Your task to perform on an android device: open app "Pandora - Music & Podcasts" (install if not already installed) and go to login screen Image 0: 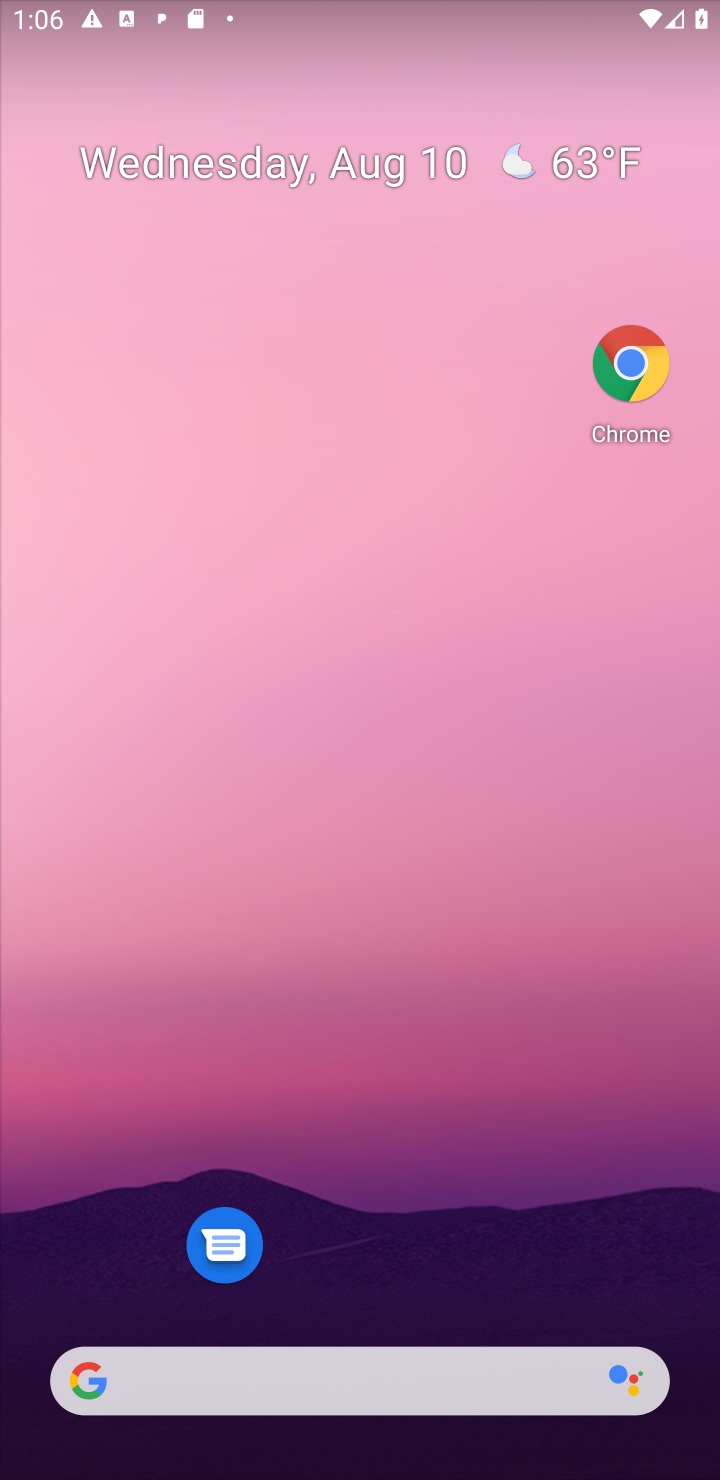
Step 0: press home button
Your task to perform on an android device: open app "Pandora - Music & Podcasts" (install if not already installed) and go to login screen Image 1: 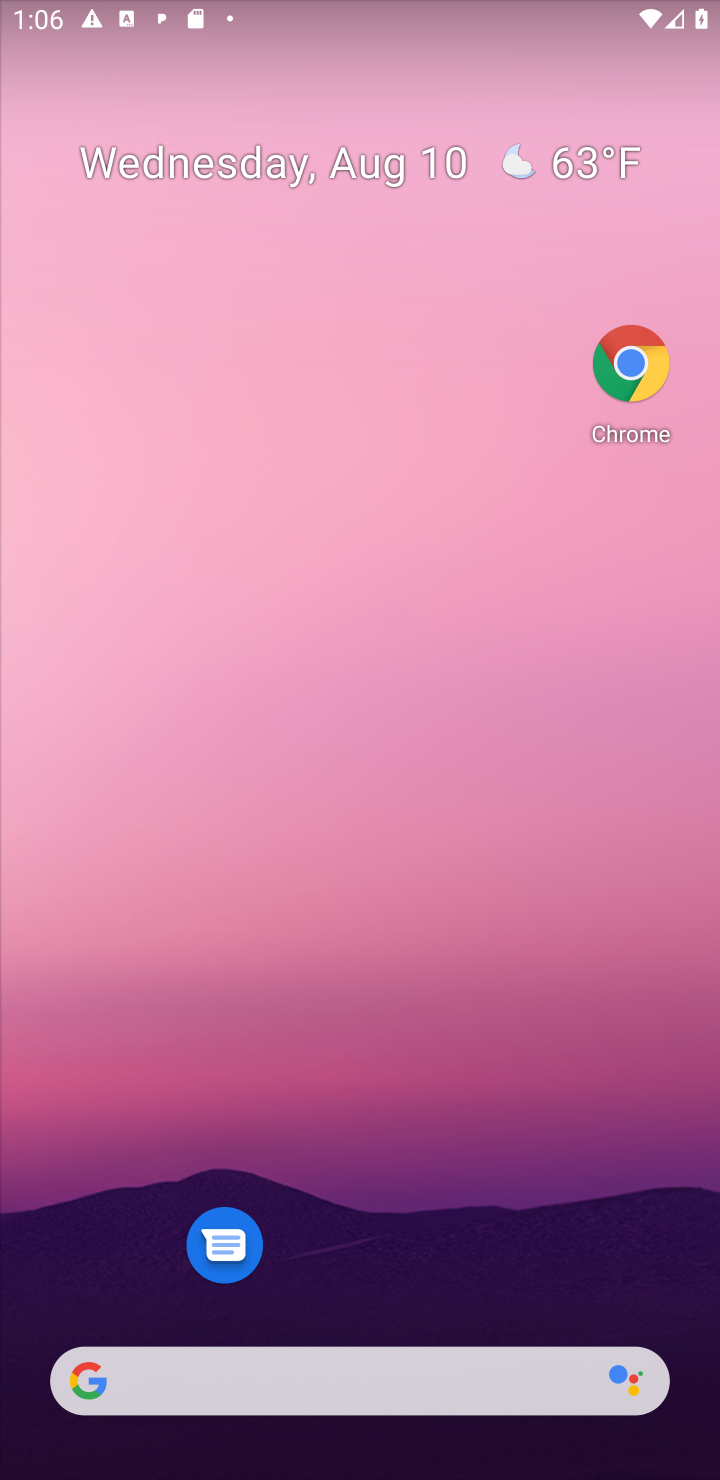
Step 1: drag from (378, 1245) to (349, 537)
Your task to perform on an android device: open app "Pandora - Music & Podcasts" (install if not already installed) and go to login screen Image 2: 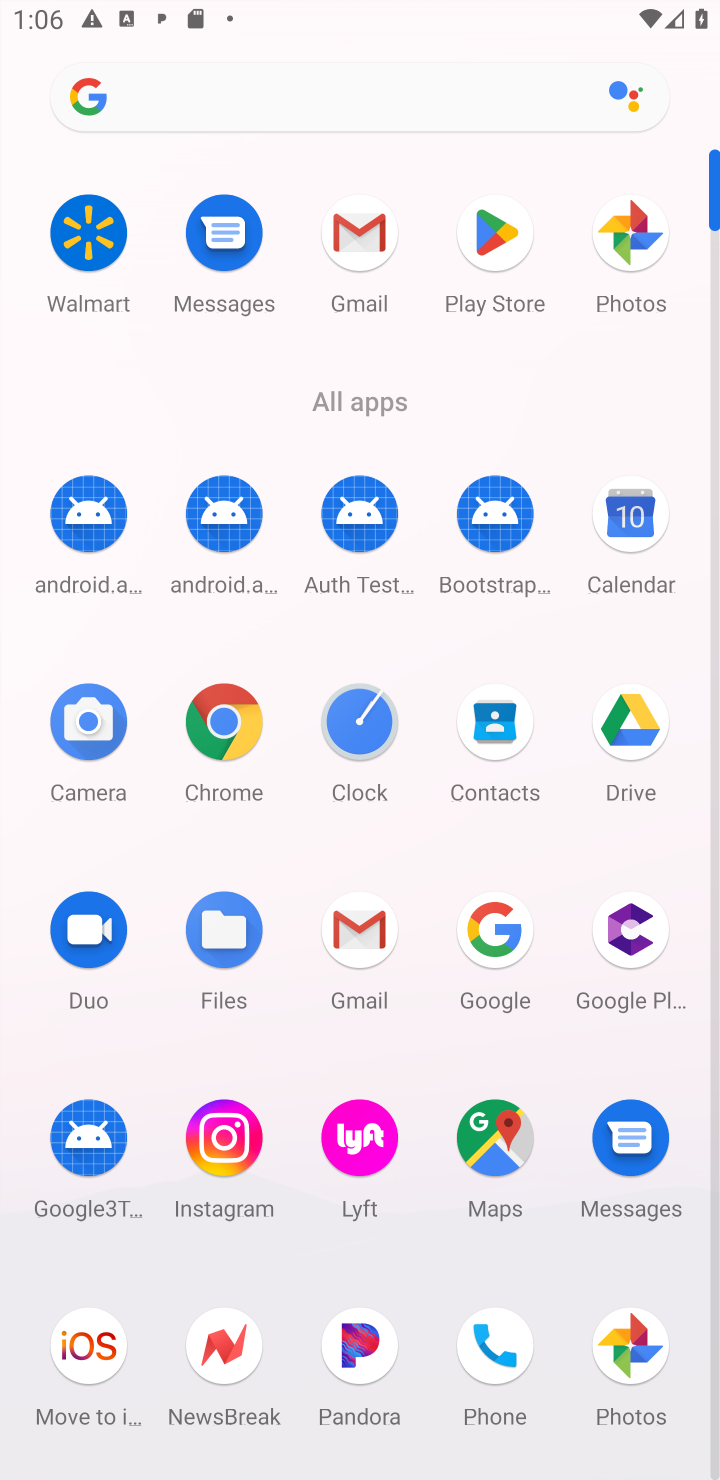
Step 2: click (515, 237)
Your task to perform on an android device: open app "Pandora - Music & Podcasts" (install if not already installed) and go to login screen Image 3: 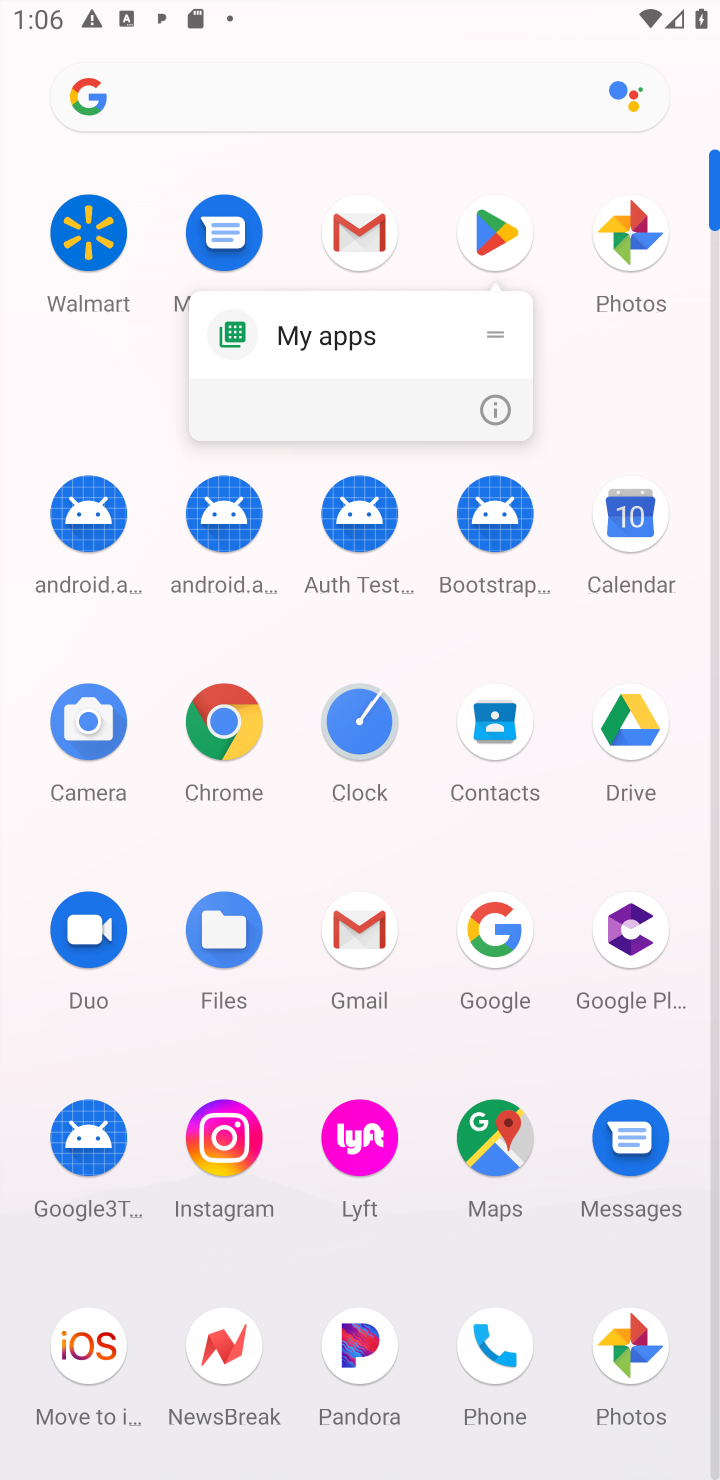
Step 3: click (364, 1357)
Your task to perform on an android device: open app "Pandora - Music & Podcasts" (install if not already installed) and go to login screen Image 4: 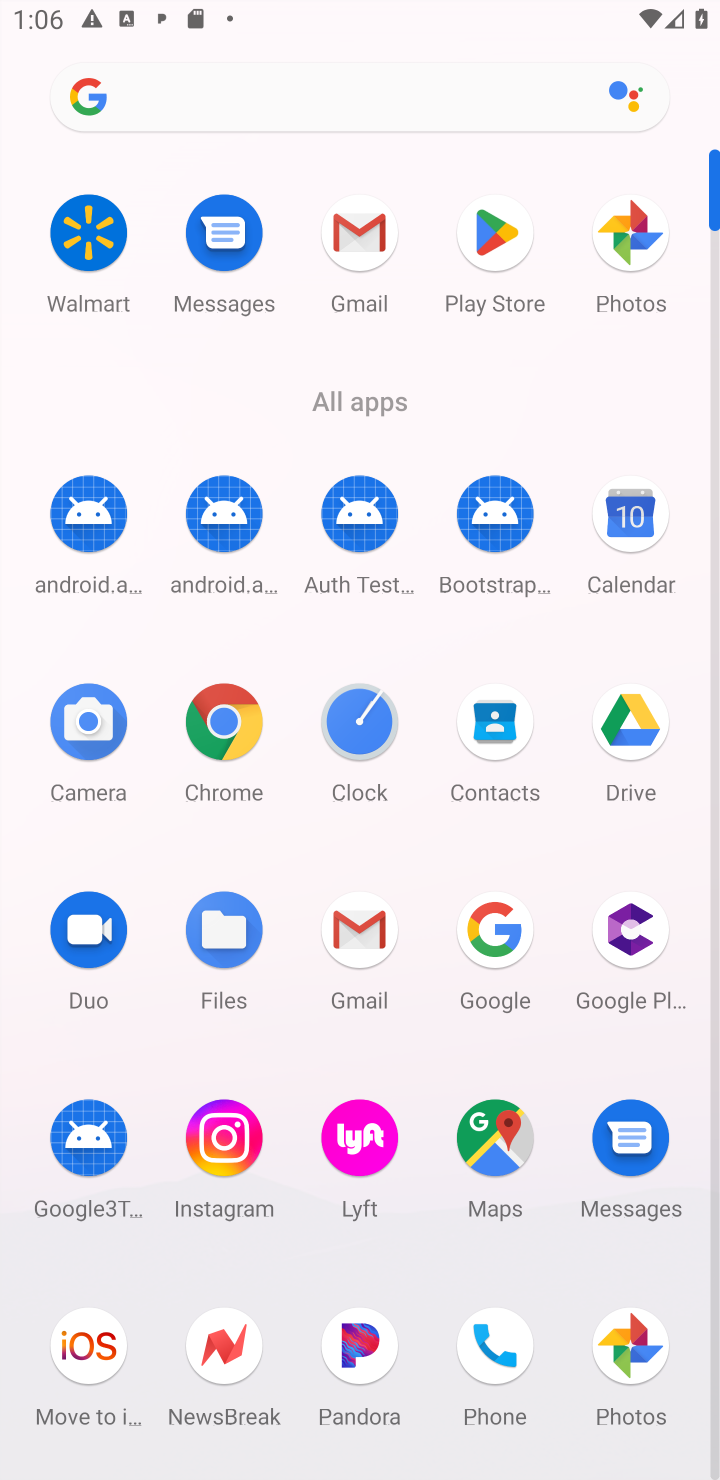
Step 4: click (364, 1357)
Your task to perform on an android device: open app "Pandora - Music & Podcasts" (install if not already installed) and go to login screen Image 5: 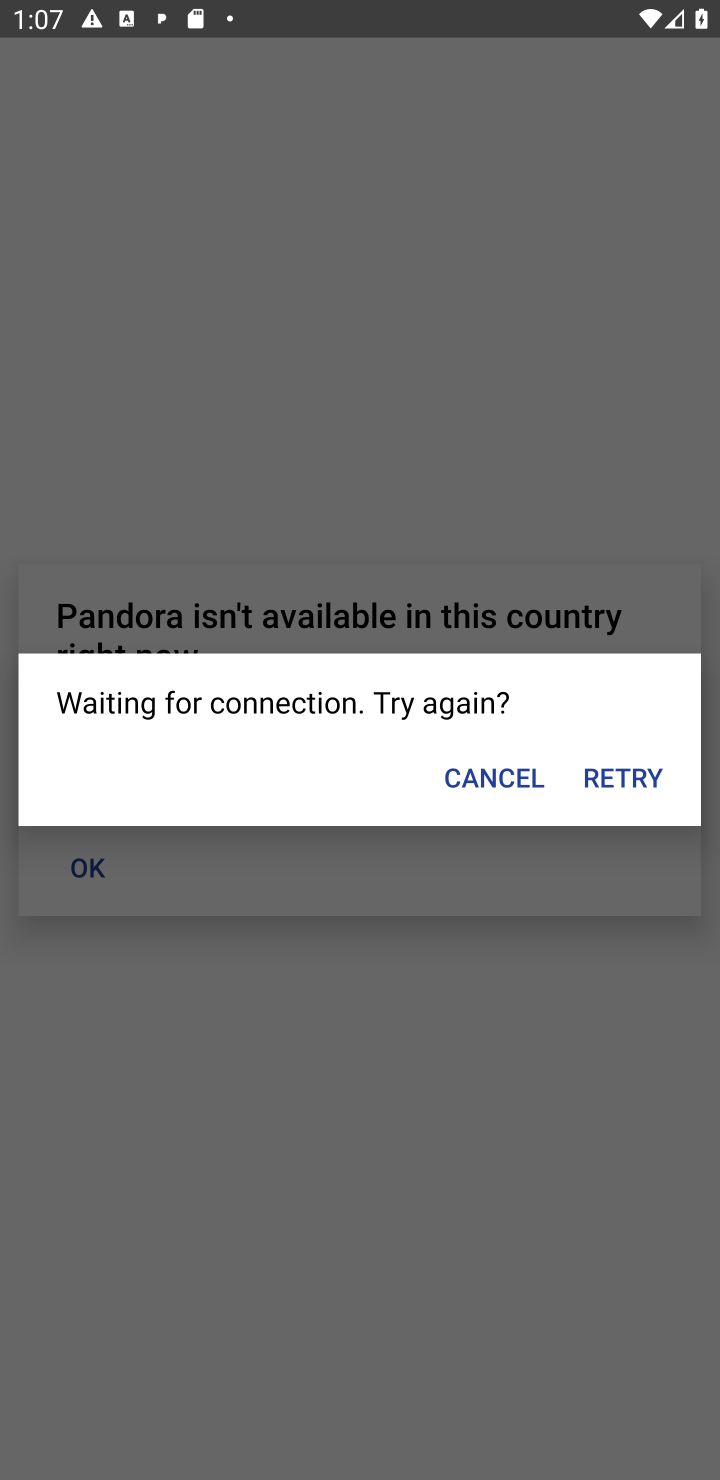
Step 5: task complete